Your task to perform on an android device: Open calendar and show me the second week of next month Image 0: 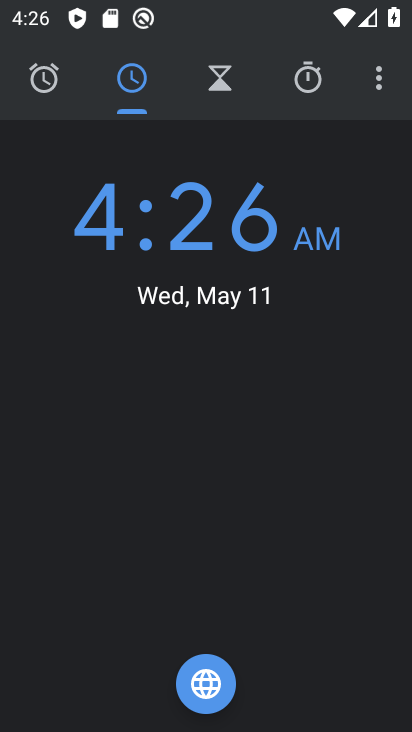
Step 0: press home button
Your task to perform on an android device: Open calendar and show me the second week of next month Image 1: 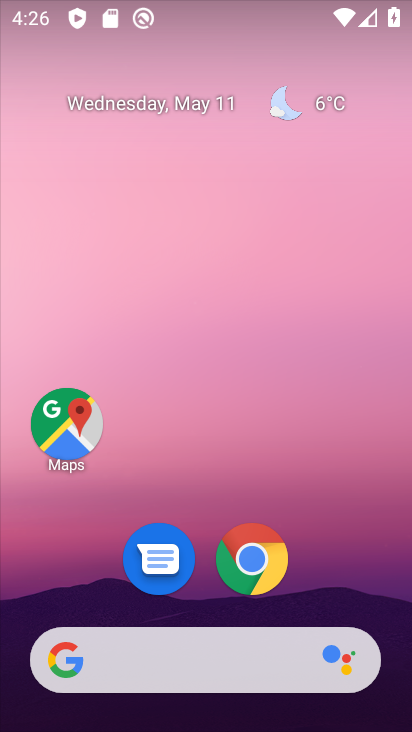
Step 1: drag from (314, 574) to (281, 233)
Your task to perform on an android device: Open calendar and show me the second week of next month Image 2: 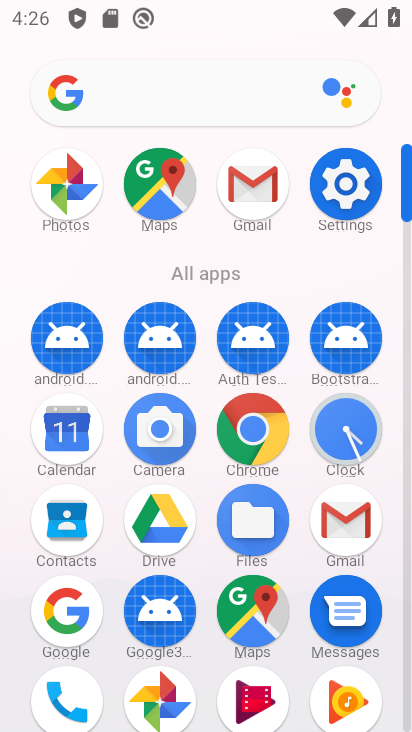
Step 2: drag from (270, 604) to (293, 319)
Your task to perform on an android device: Open calendar and show me the second week of next month Image 3: 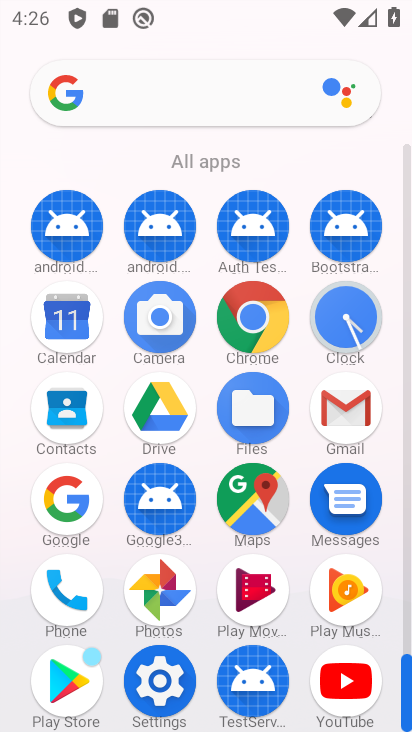
Step 3: drag from (292, 625) to (324, 391)
Your task to perform on an android device: Open calendar and show me the second week of next month Image 4: 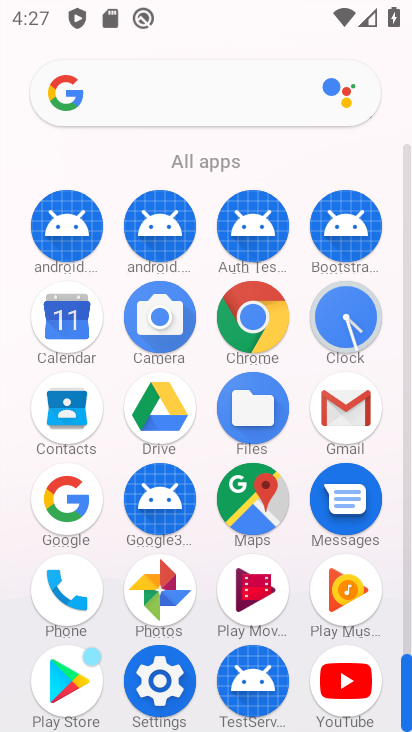
Step 4: drag from (289, 462) to (277, 576)
Your task to perform on an android device: Open calendar and show me the second week of next month Image 5: 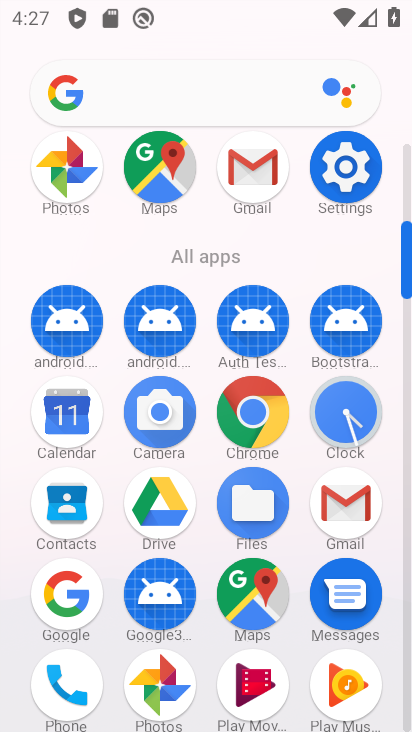
Step 5: drag from (207, 575) to (229, 331)
Your task to perform on an android device: Open calendar and show me the second week of next month Image 6: 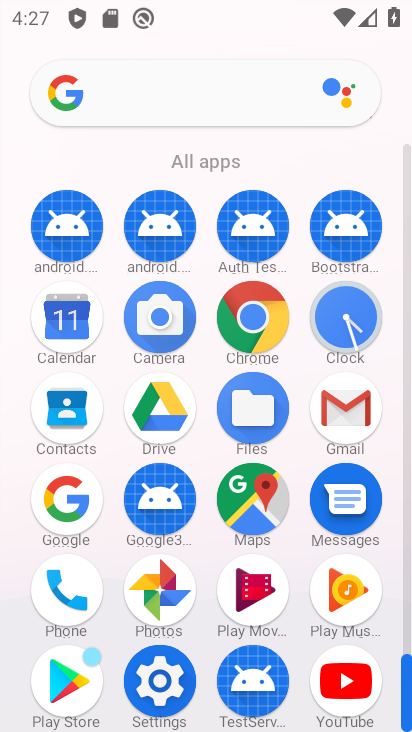
Step 6: click (41, 349)
Your task to perform on an android device: Open calendar and show me the second week of next month Image 7: 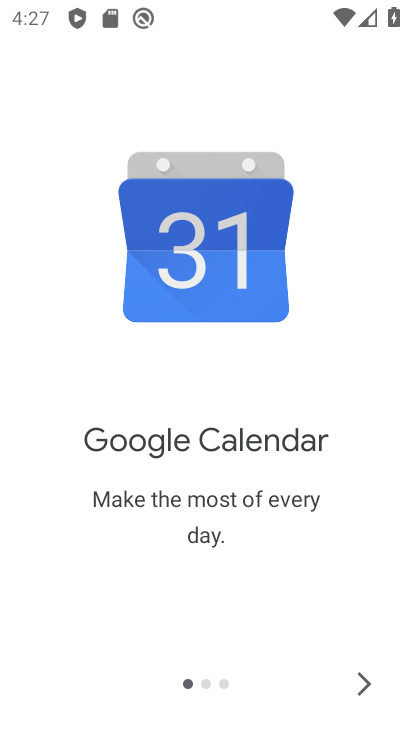
Step 7: click (376, 700)
Your task to perform on an android device: Open calendar and show me the second week of next month Image 8: 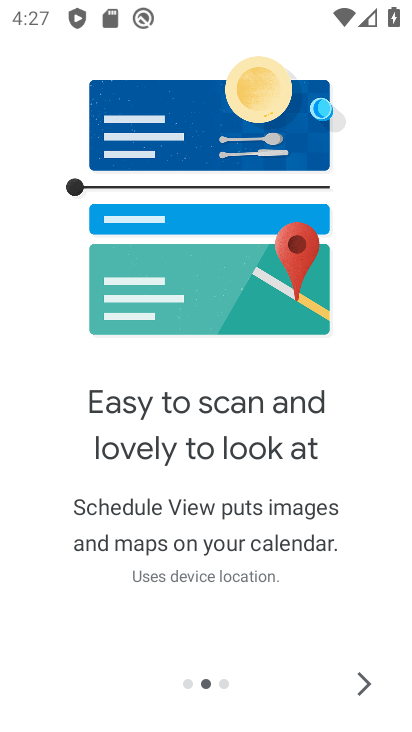
Step 8: click (375, 698)
Your task to perform on an android device: Open calendar and show me the second week of next month Image 9: 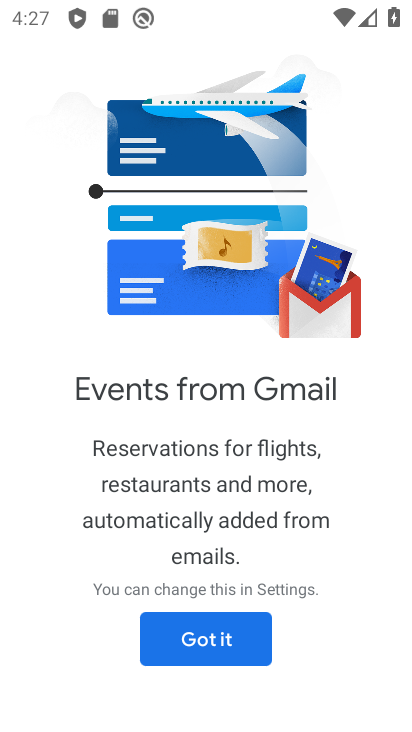
Step 9: click (192, 636)
Your task to perform on an android device: Open calendar and show me the second week of next month Image 10: 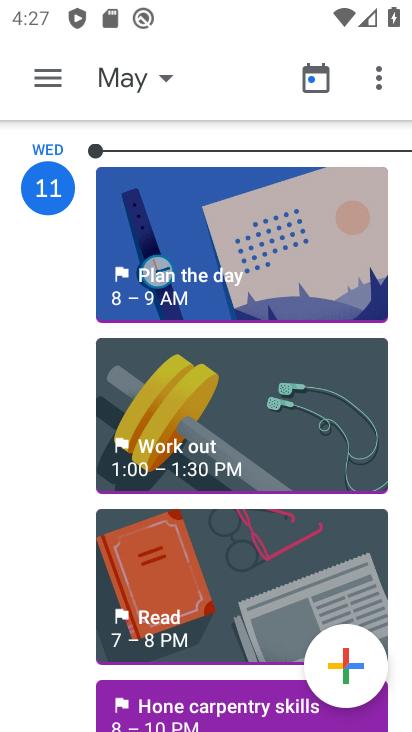
Step 10: click (125, 84)
Your task to perform on an android device: Open calendar and show me the second week of next month Image 11: 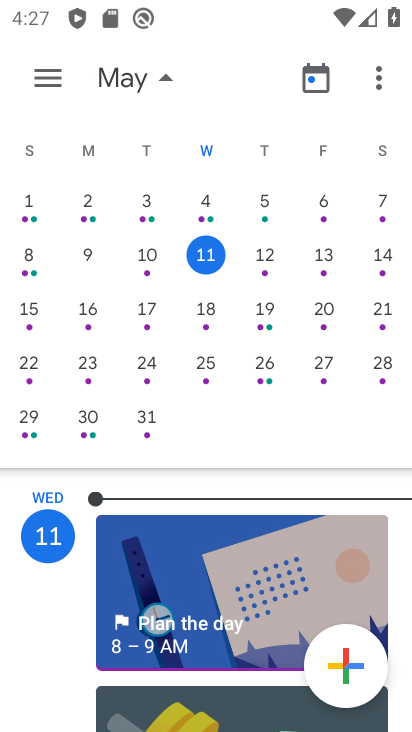
Step 11: drag from (324, 257) to (16, 295)
Your task to perform on an android device: Open calendar and show me the second week of next month Image 12: 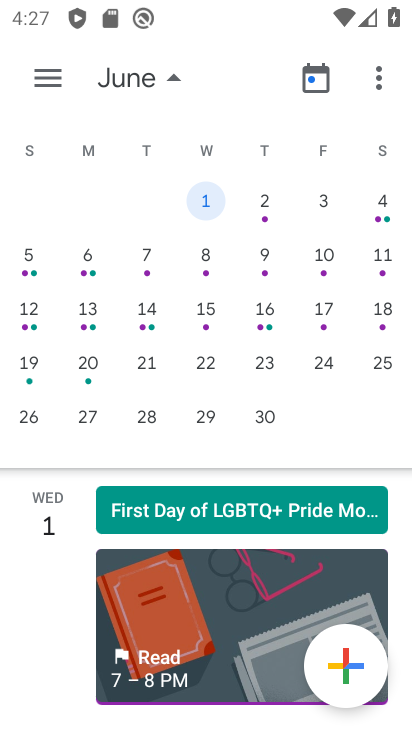
Step 12: click (28, 319)
Your task to perform on an android device: Open calendar and show me the second week of next month Image 13: 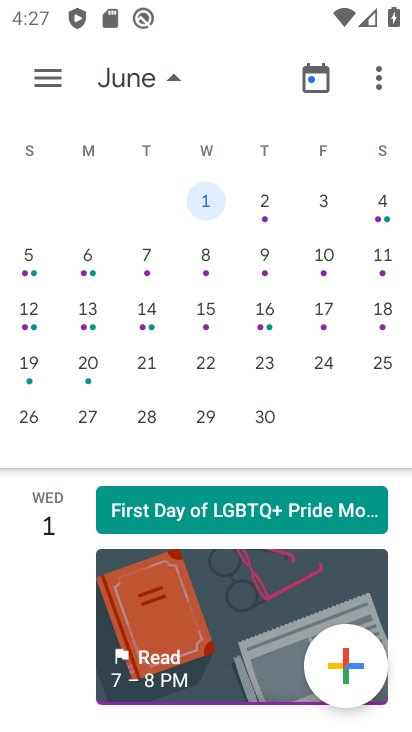
Step 13: click (28, 309)
Your task to perform on an android device: Open calendar and show me the second week of next month Image 14: 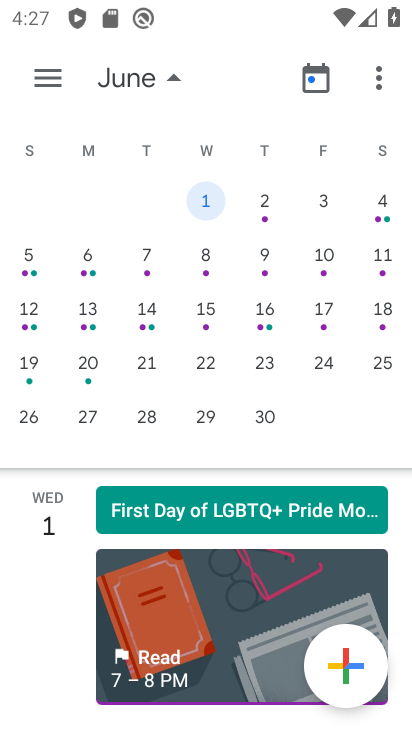
Step 14: click (29, 313)
Your task to perform on an android device: Open calendar and show me the second week of next month Image 15: 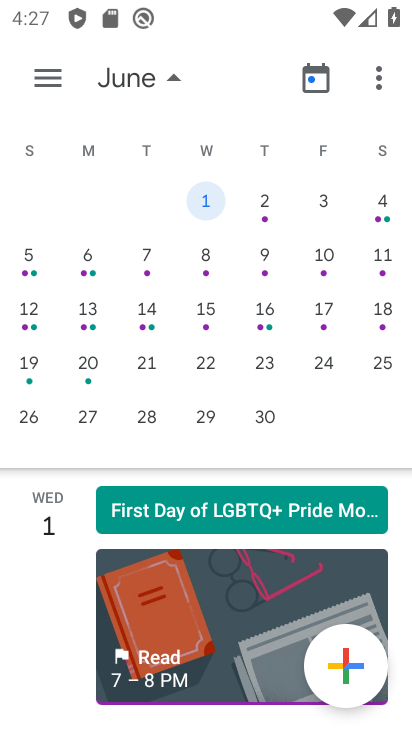
Step 15: click (35, 313)
Your task to perform on an android device: Open calendar and show me the second week of next month Image 16: 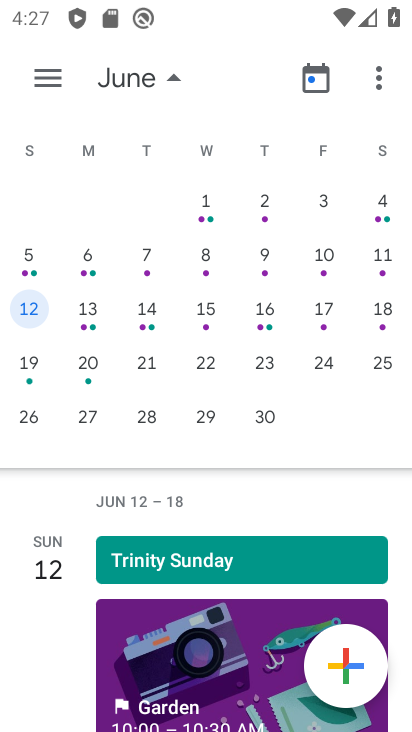
Step 16: click (59, 74)
Your task to perform on an android device: Open calendar and show me the second week of next month Image 17: 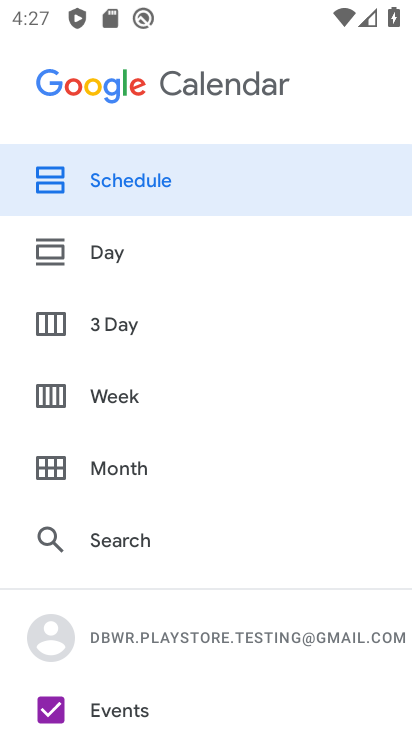
Step 17: click (144, 399)
Your task to perform on an android device: Open calendar and show me the second week of next month Image 18: 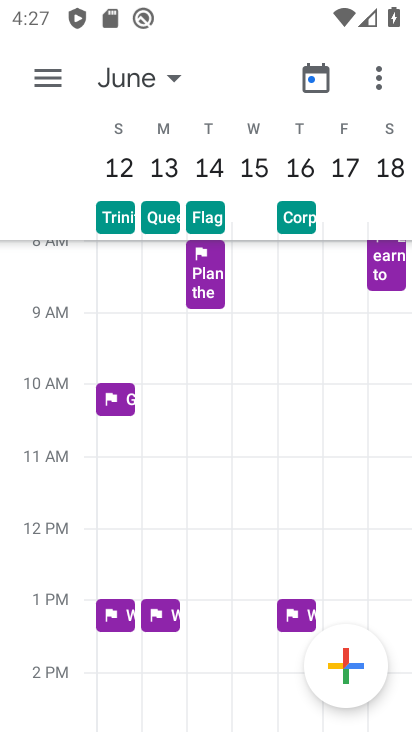
Step 18: drag from (238, 437) to (263, 269)
Your task to perform on an android device: Open calendar and show me the second week of next month Image 19: 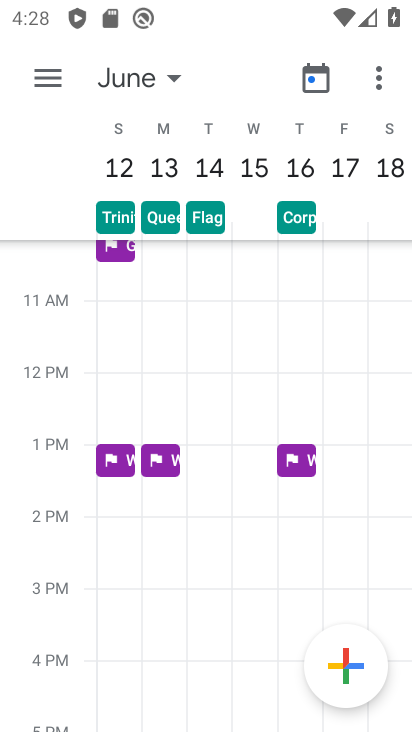
Step 19: click (274, 213)
Your task to perform on an android device: Open calendar and show me the second week of next month Image 20: 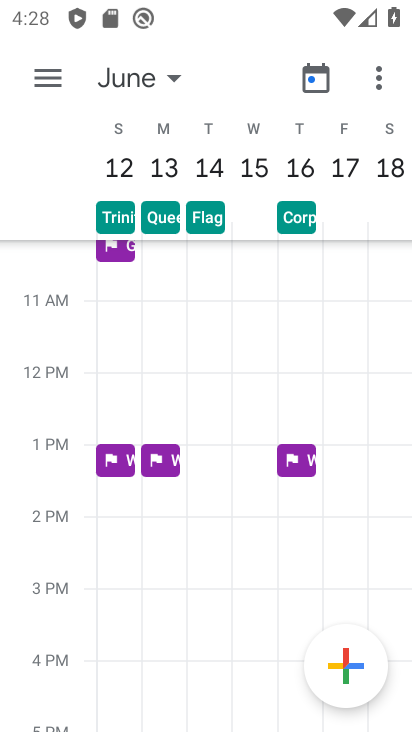
Step 20: task complete